Your task to perform on an android device: Open the map Image 0: 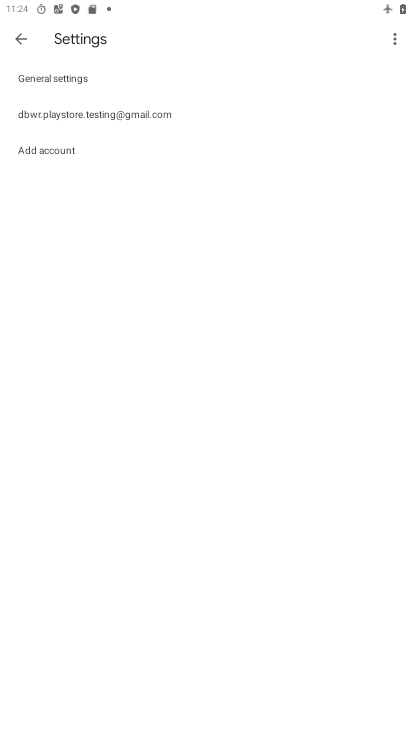
Step 0: press home button
Your task to perform on an android device: Open the map Image 1: 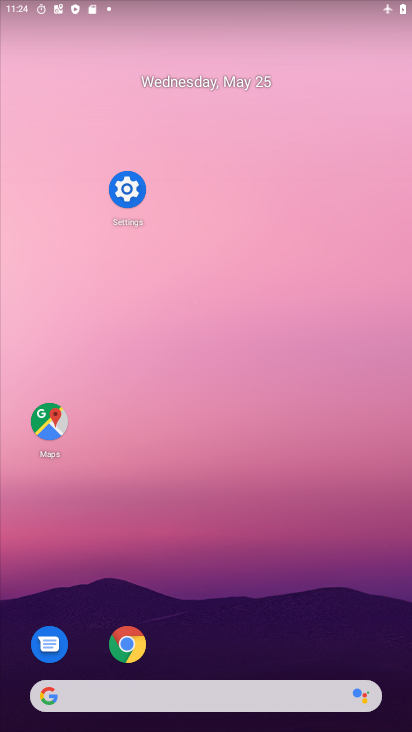
Step 1: click (50, 426)
Your task to perform on an android device: Open the map Image 2: 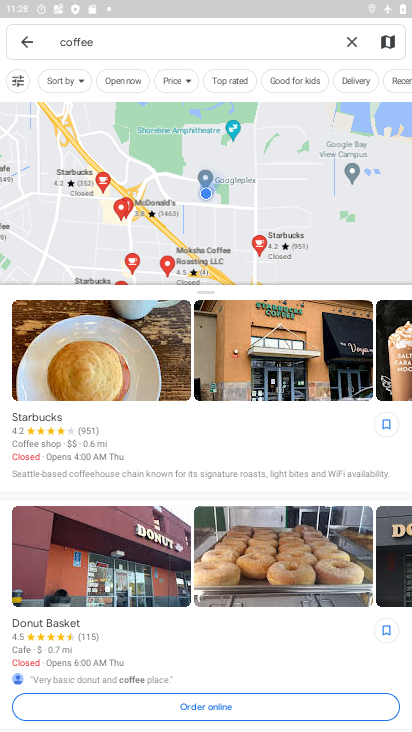
Step 2: task complete